Your task to perform on an android device: clear all cookies in the chrome app Image 0: 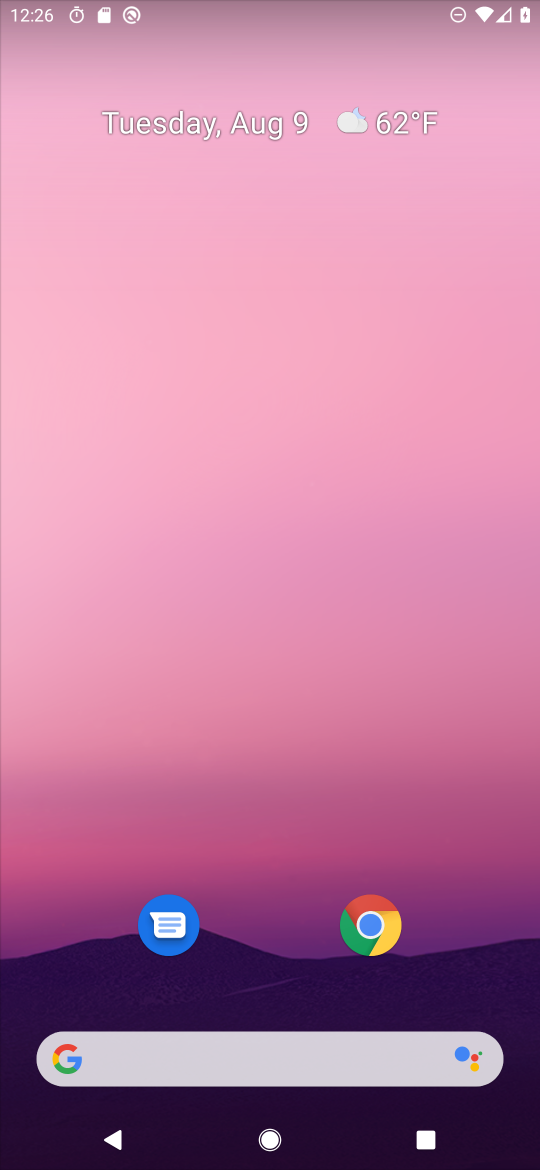
Step 0: drag from (291, 951) to (368, 370)
Your task to perform on an android device: clear all cookies in the chrome app Image 1: 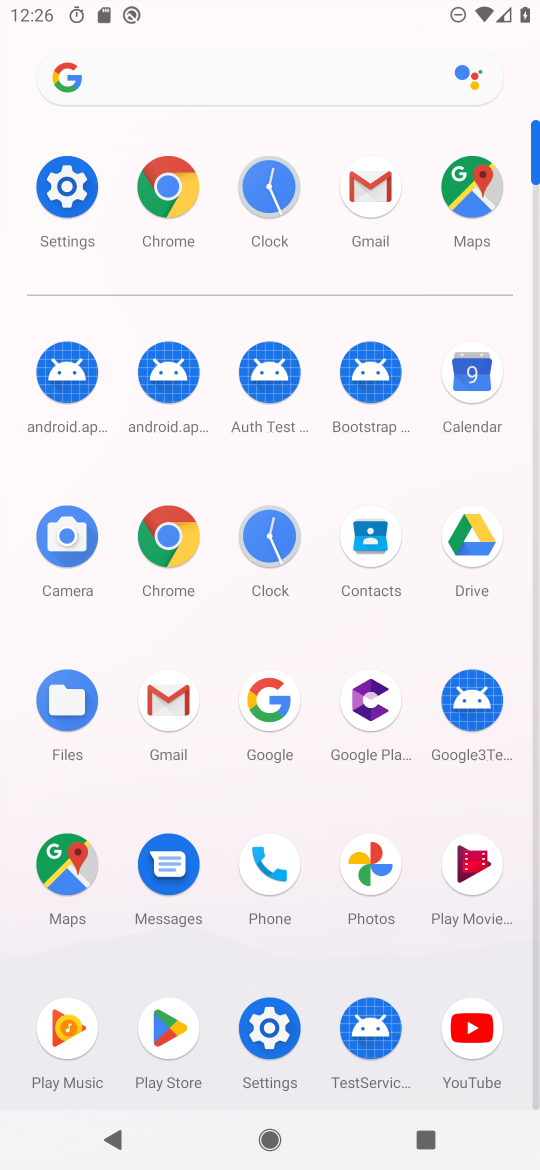
Step 1: click (161, 527)
Your task to perform on an android device: clear all cookies in the chrome app Image 2: 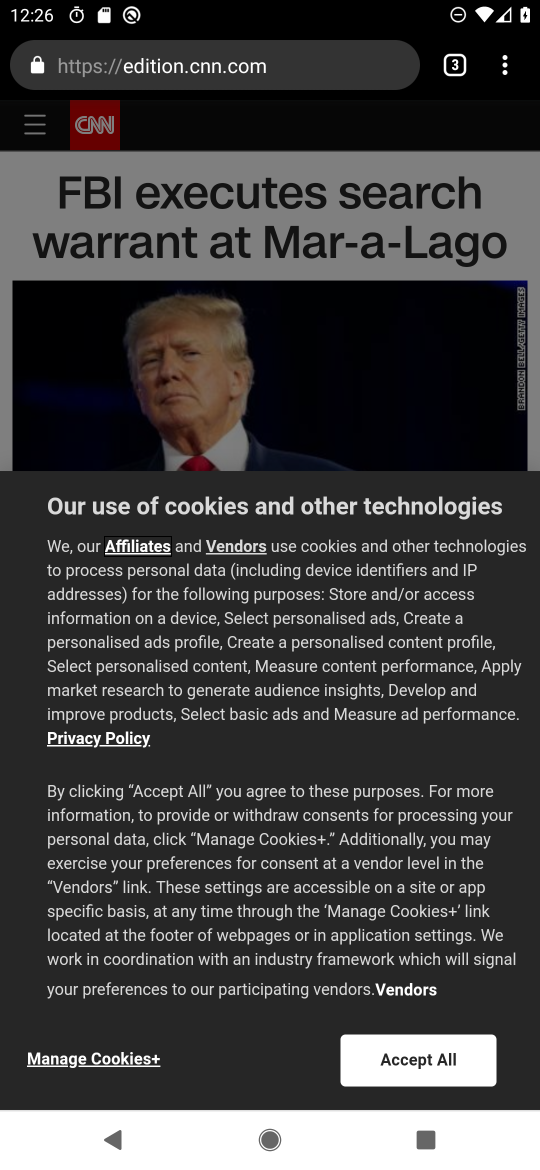
Step 2: drag from (516, 71) to (324, 802)
Your task to perform on an android device: clear all cookies in the chrome app Image 3: 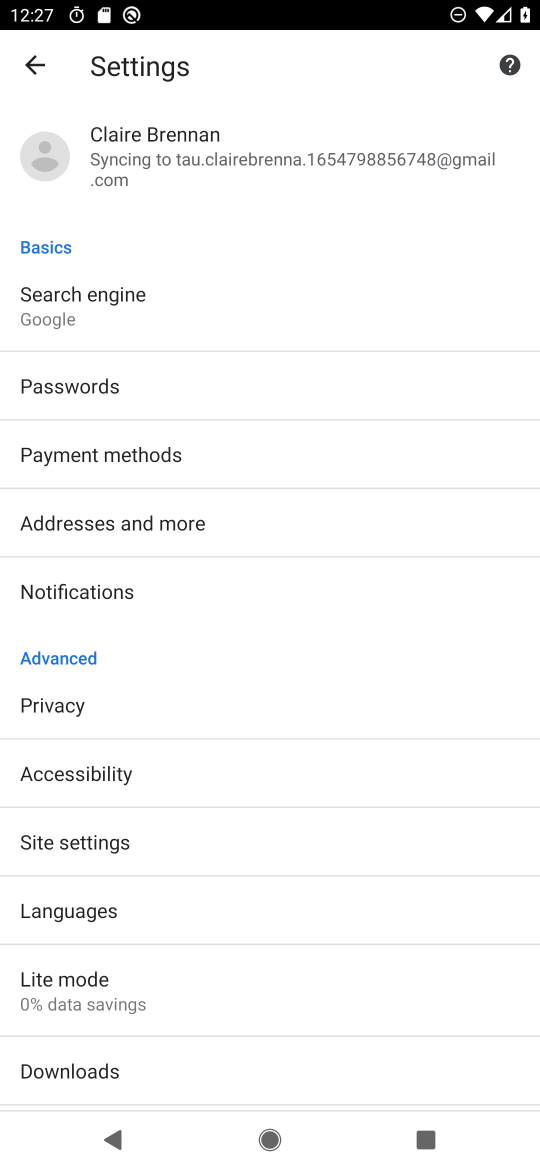
Step 3: click (150, 843)
Your task to perform on an android device: clear all cookies in the chrome app Image 4: 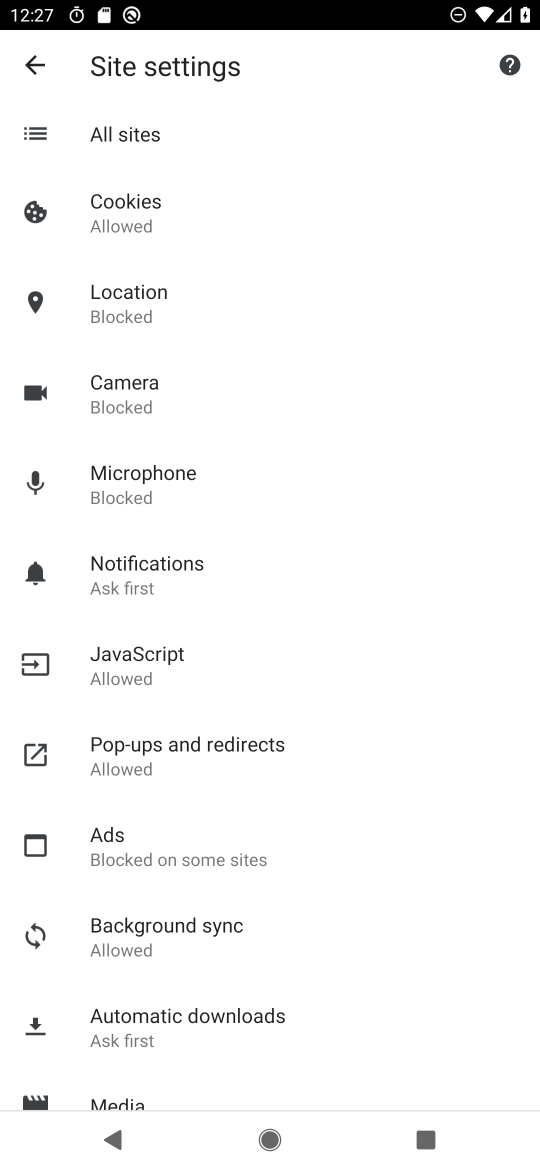
Step 4: click (122, 206)
Your task to perform on an android device: clear all cookies in the chrome app Image 5: 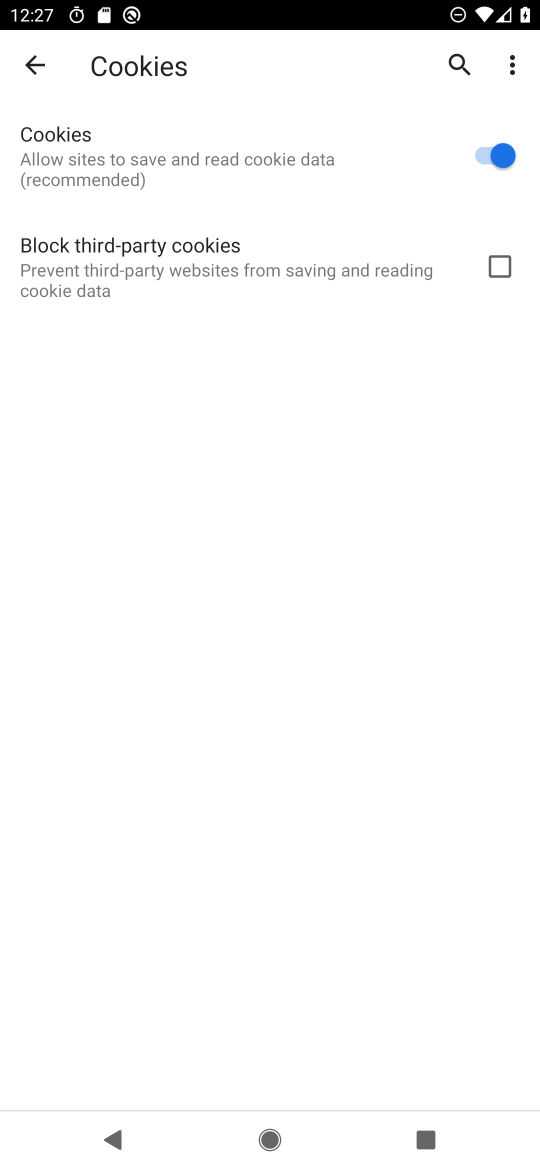
Step 5: task complete